Your task to perform on an android device: turn on wifi Image 0: 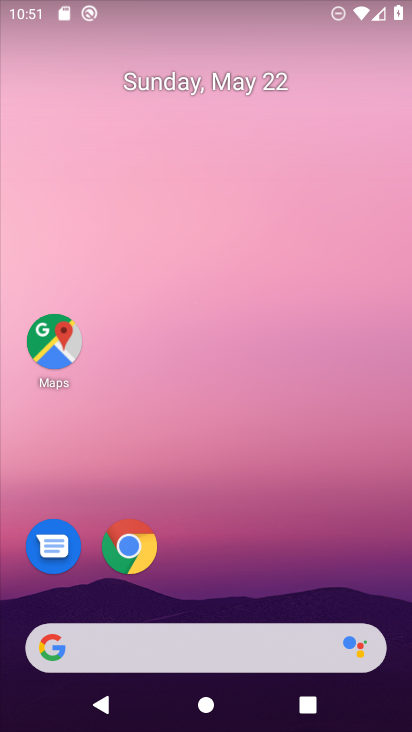
Step 0: drag from (226, 565) to (275, 0)
Your task to perform on an android device: turn on wifi Image 1: 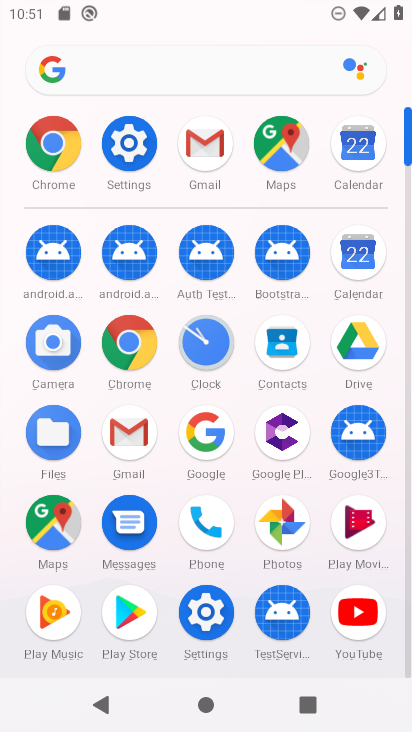
Step 1: click (136, 147)
Your task to perform on an android device: turn on wifi Image 2: 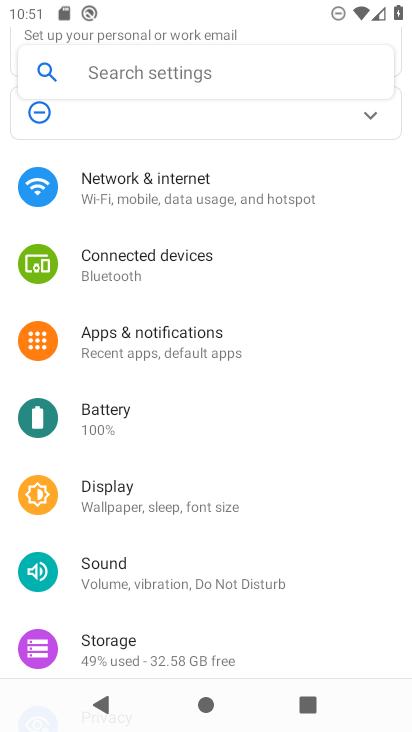
Step 2: click (152, 202)
Your task to perform on an android device: turn on wifi Image 3: 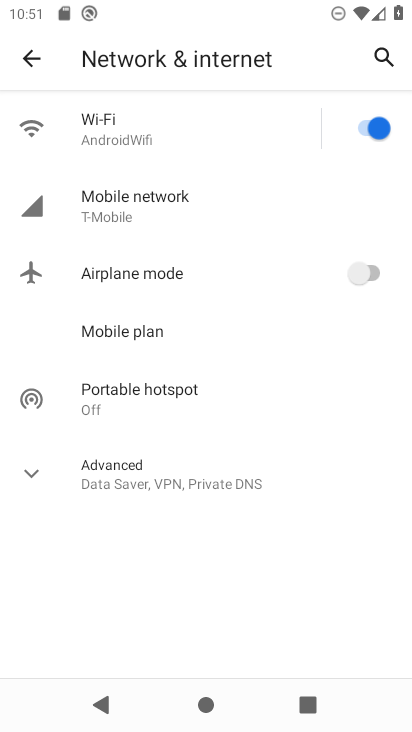
Step 3: task complete